Your task to perform on an android device: Open Wikipedia Image 0: 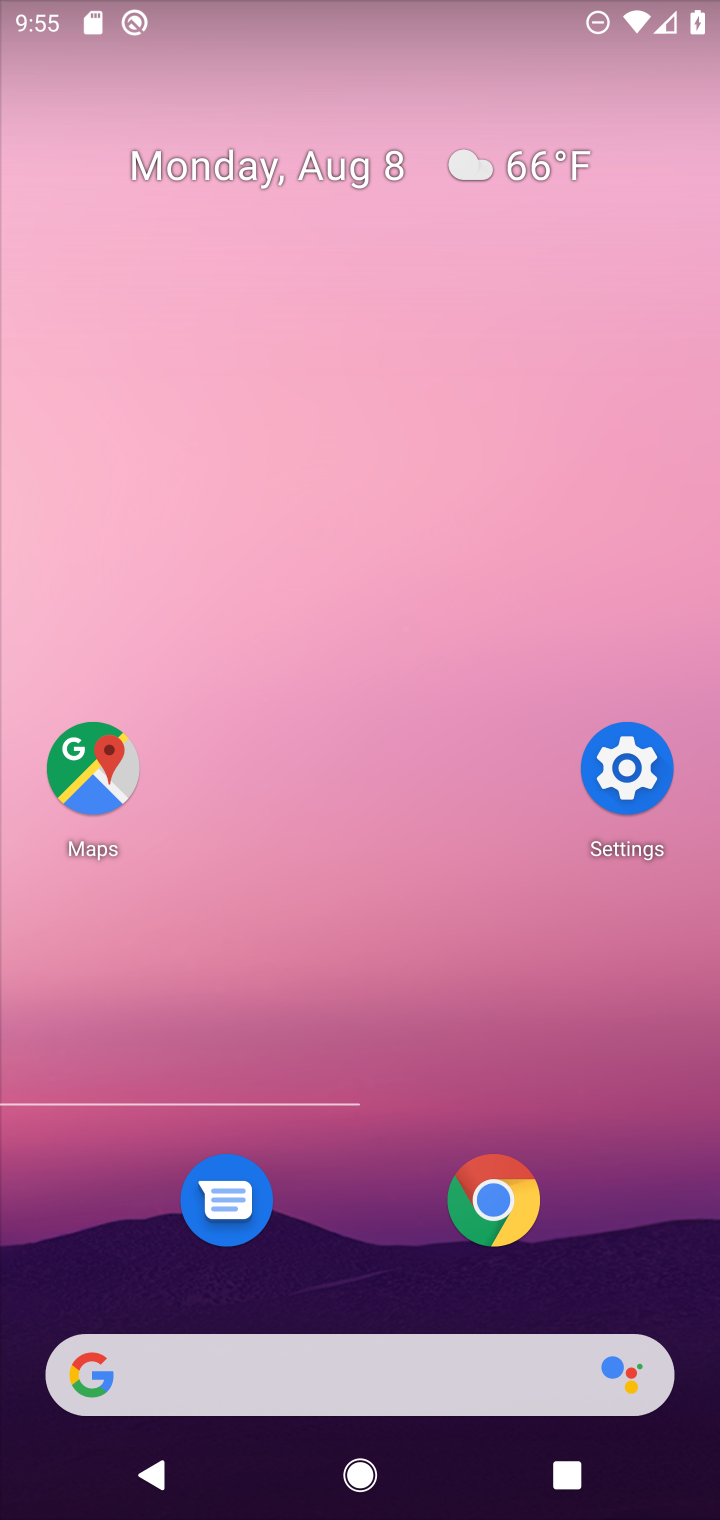
Step 0: press home button
Your task to perform on an android device: Open Wikipedia Image 1: 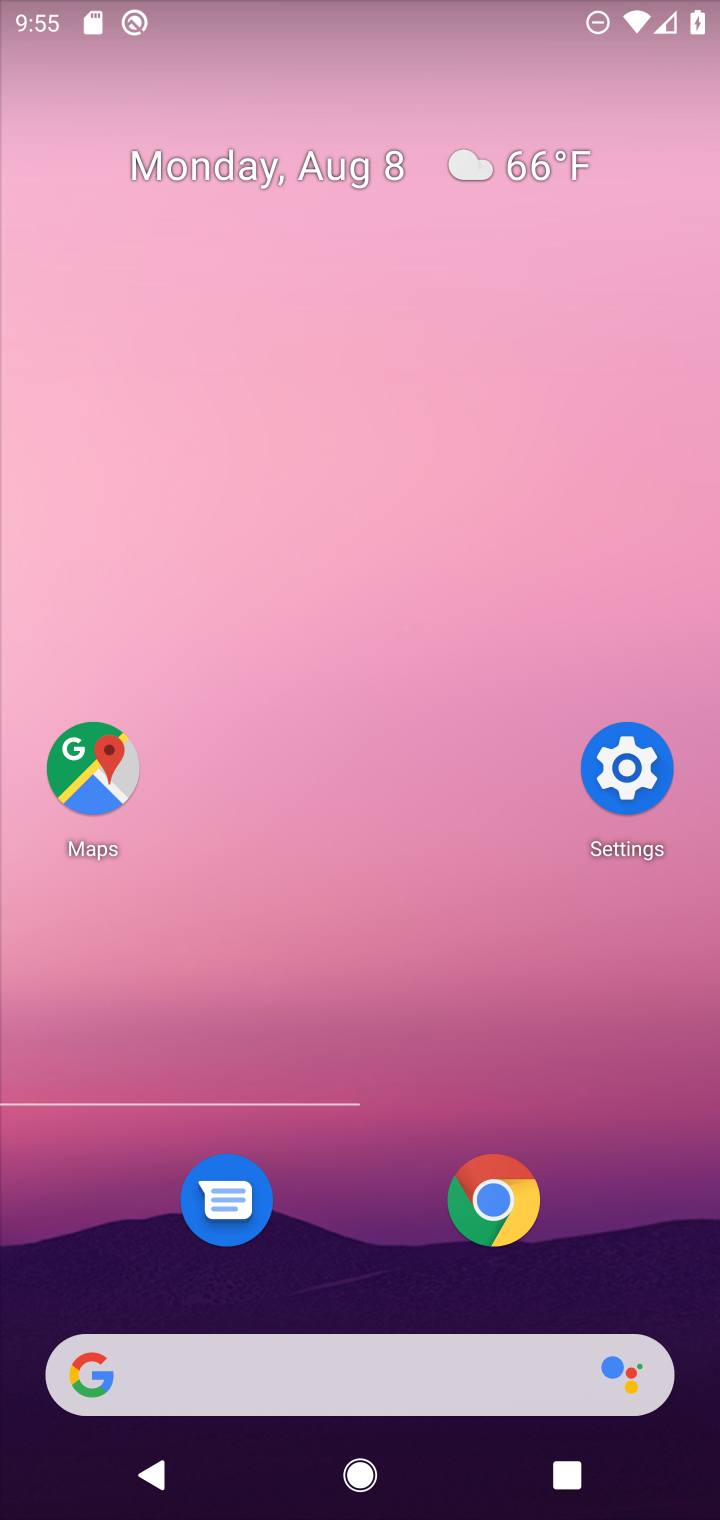
Step 1: click (493, 1193)
Your task to perform on an android device: Open Wikipedia Image 2: 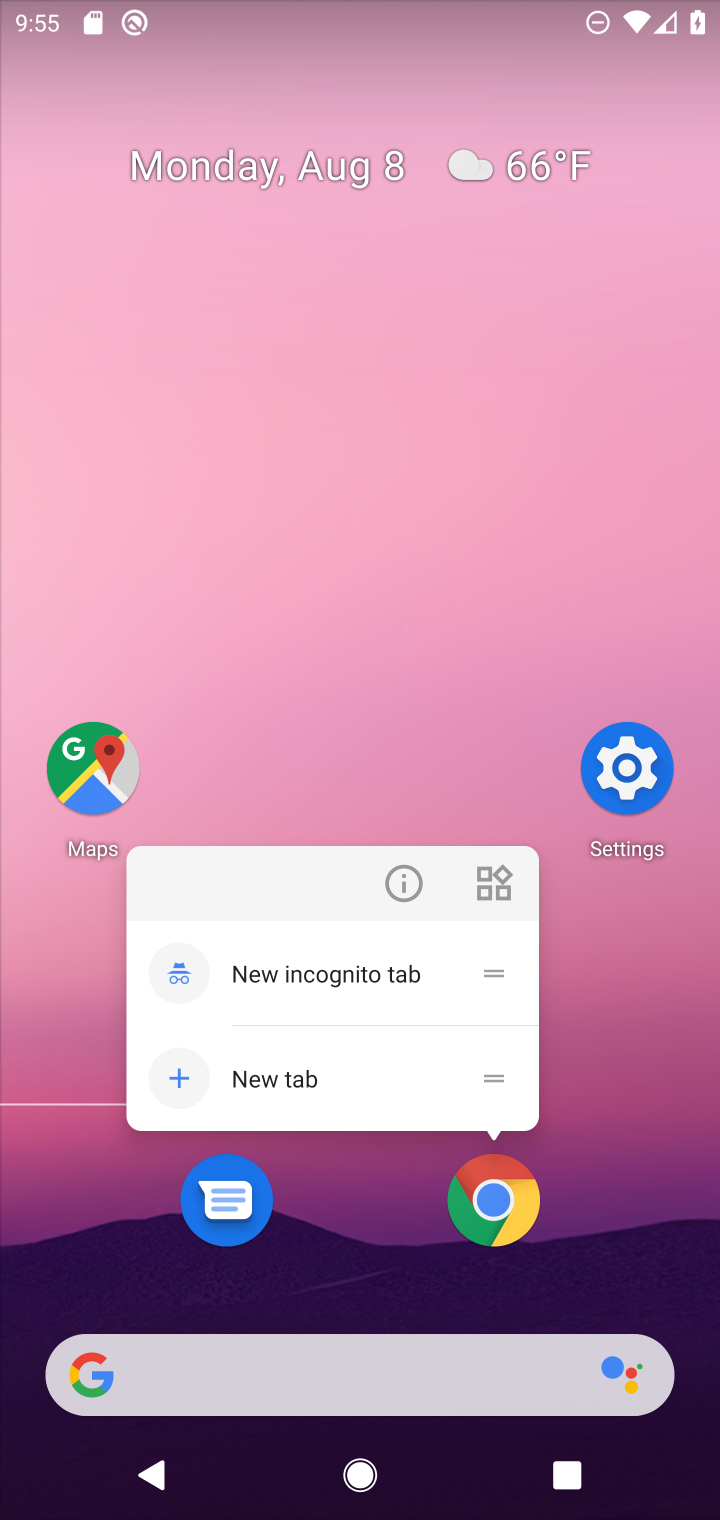
Step 2: click (493, 1193)
Your task to perform on an android device: Open Wikipedia Image 3: 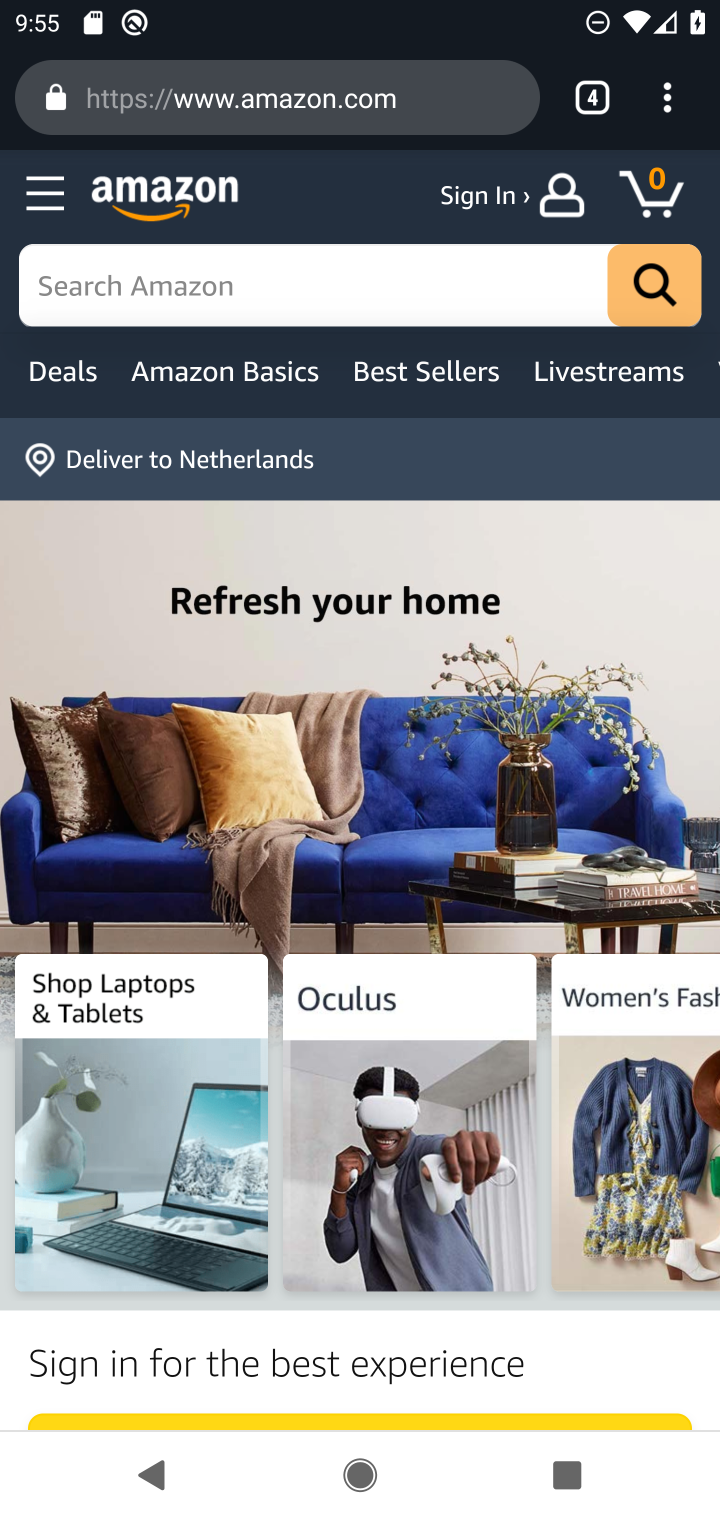
Step 3: drag from (667, 105) to (406, 318)
Your task to perform on an android device: Open Wikipedia Image 4: 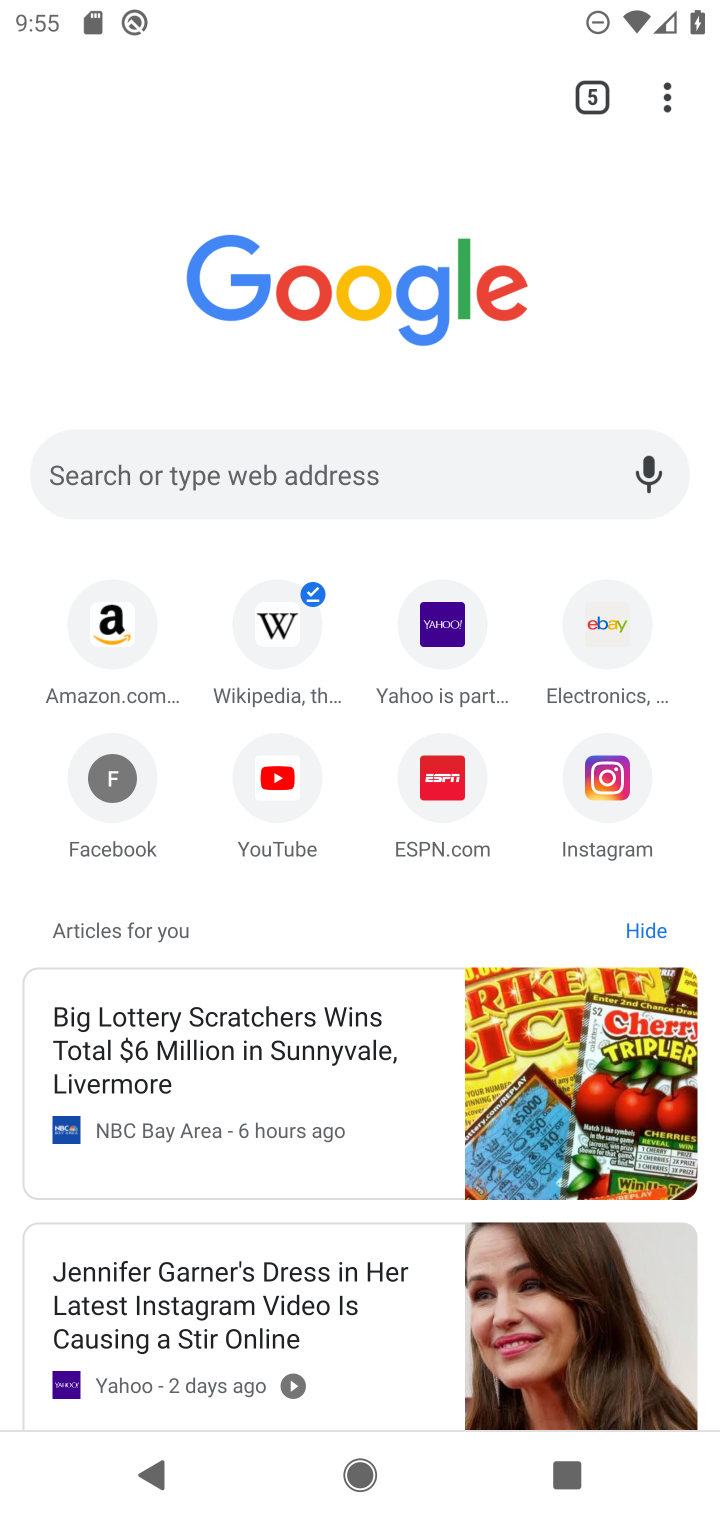
Step 4: click (282, 628)
Your task to perform on an android device: Open Wikipedia Image 5: 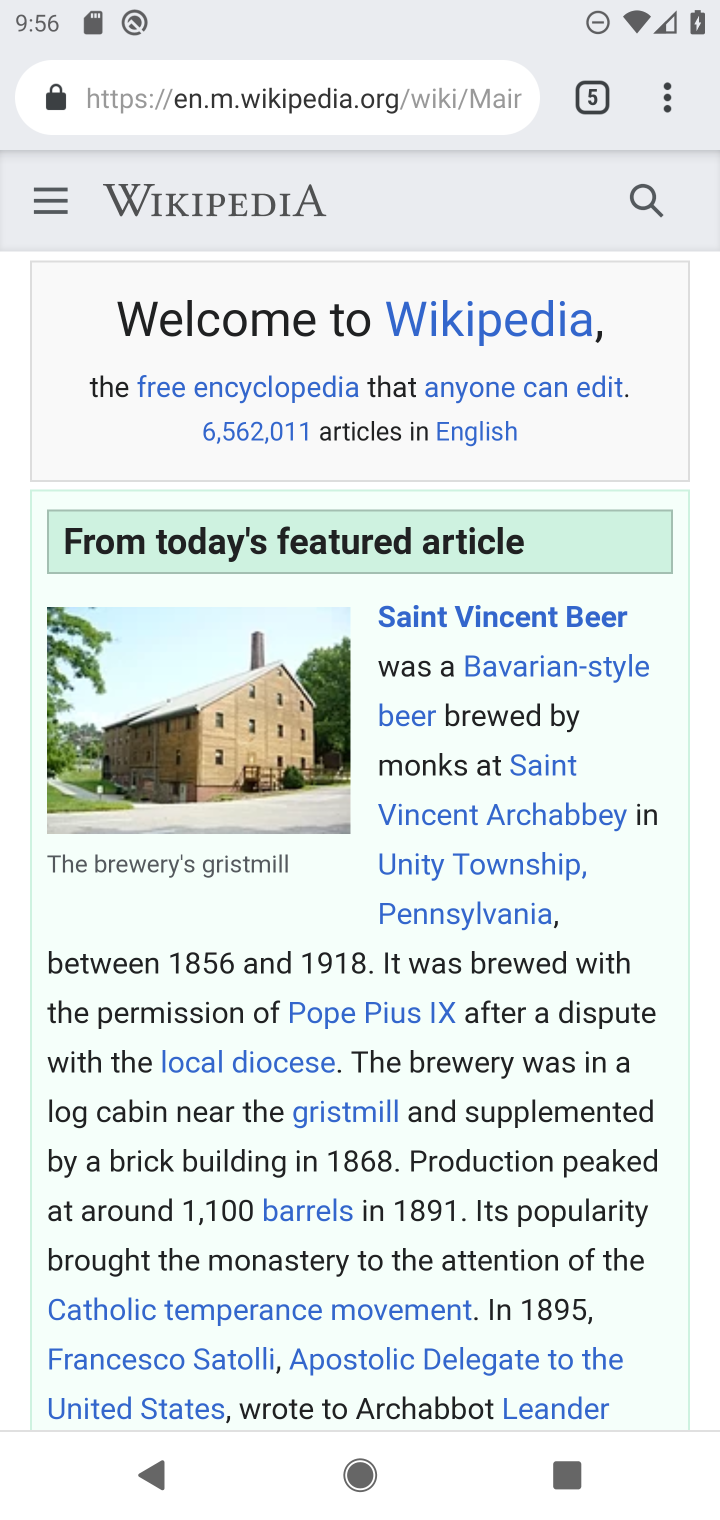
Step 5: task complete